Your task to perform on an android device: turn off wifi Image 0: 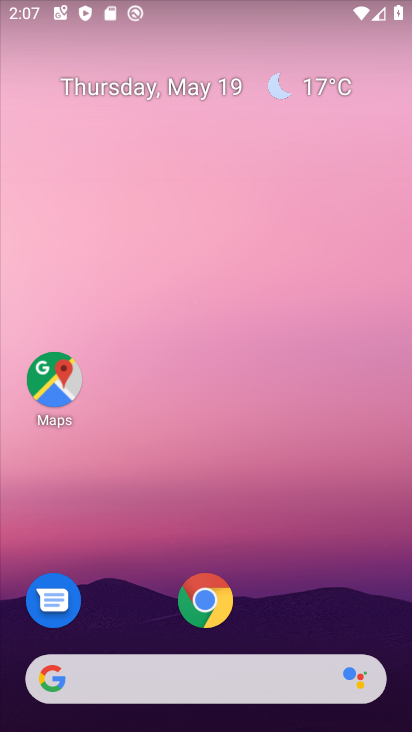
Step 0: drag from (330, 8) to (327, 382)
Your task to perform on an android device: turn off wifi Image 1: 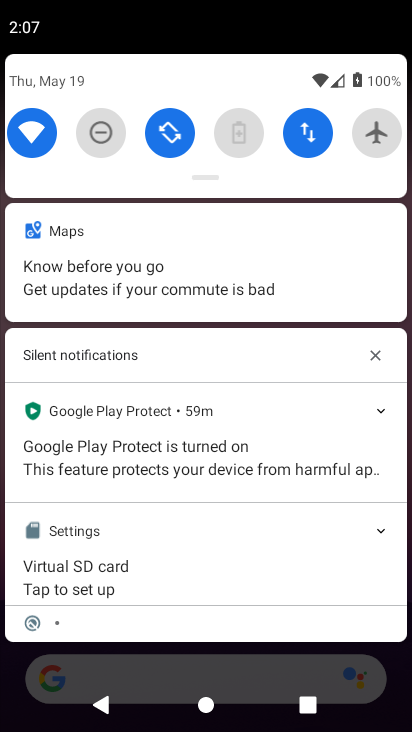
Step 1: click (38, 133)
Your task to perform on an android device: turn off wifi Image 2: 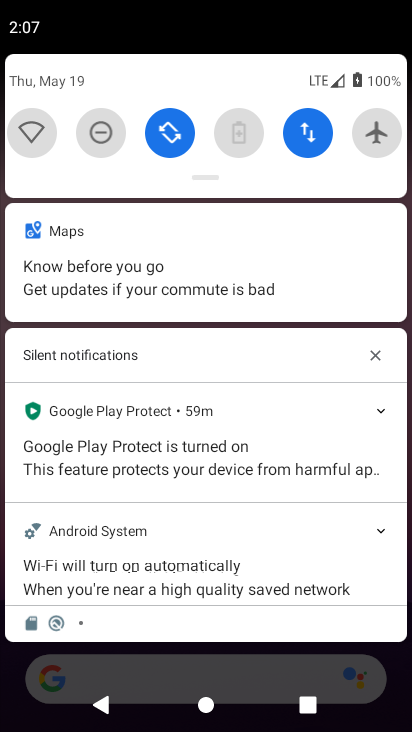
Step 2: task complete